Your task to perform on an android device: add a label to a message in the gmail app Image 0: 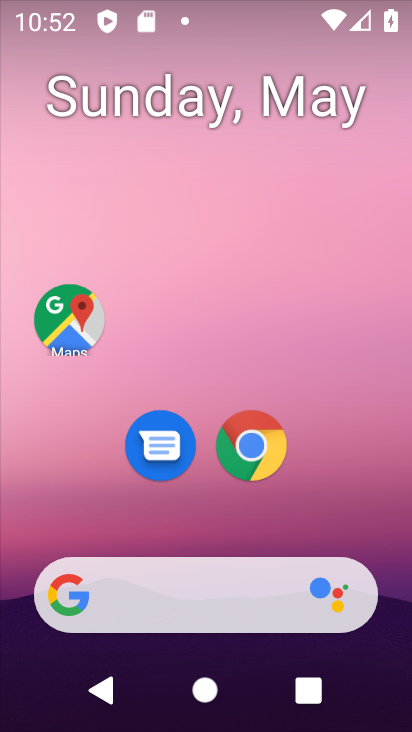
Step 0: drag from (203, 496) to (243, 117)
Your task to perform on an android device: add a label to a message in the gmail app Image 1: 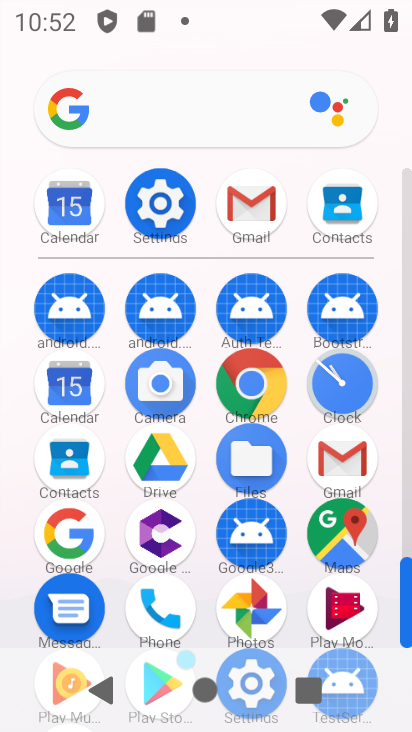
Step 1: click (252, 198)
Your task to perform on an android device: add a label to a message in the gmail app Image 2: 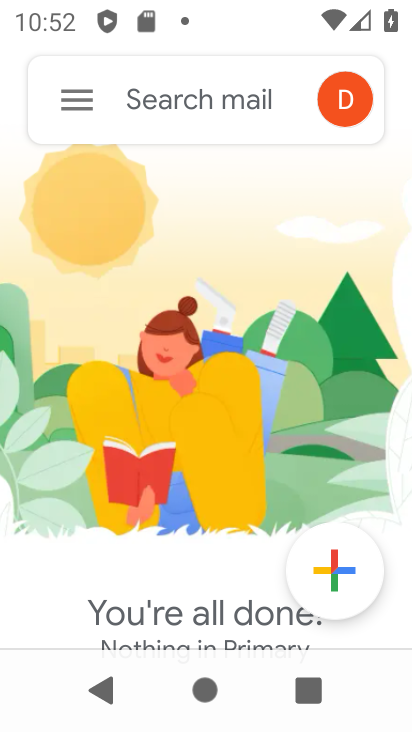
Step 2: click (82, 107)
Your task to perform on an android device: add a label to a message in the gmail app Image 3: 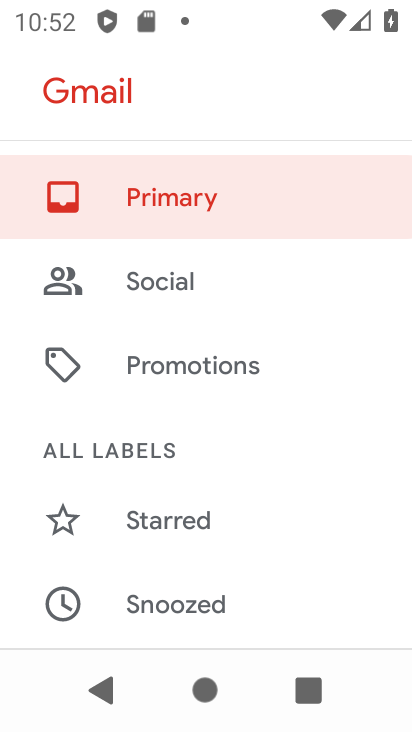
Step 3: drag from (211, 487) to (248, 158)
Your task to perform on an android device: add a label to a message in the gmail app Image 4: 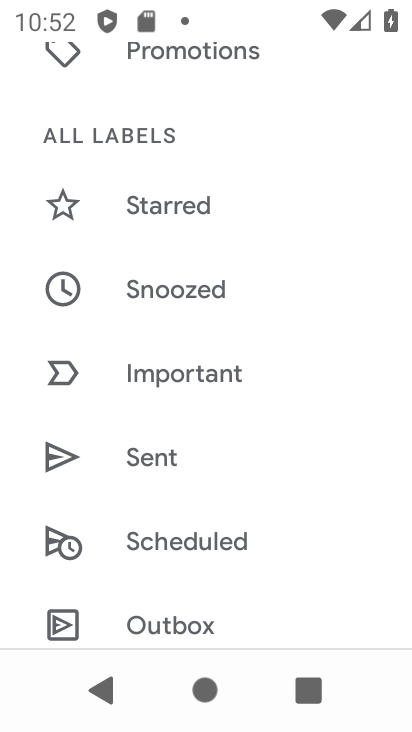
Step 4: drag from (204, 593) to (252, 272)
Your task to perform on an android device: add a label to a message in the gmail app Image 5: 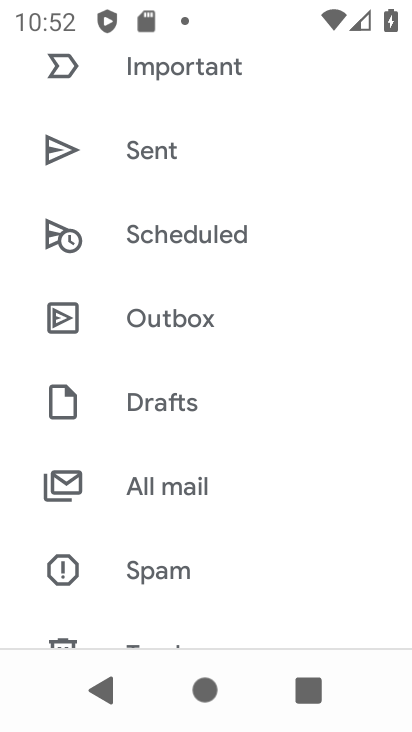
Step 5: click (178, 489)
Your task to perform on an android device: add a label to a message in the gmail app Image 6: 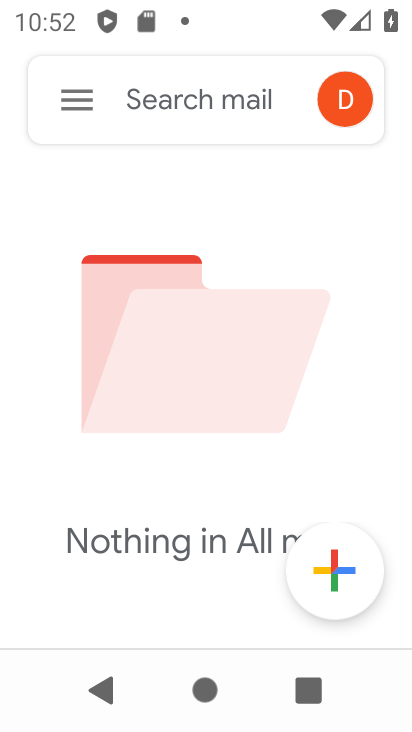
Step 6: task complete